Your task to perform on an android device: Search for Mexican restaurants on Maps Image 0: 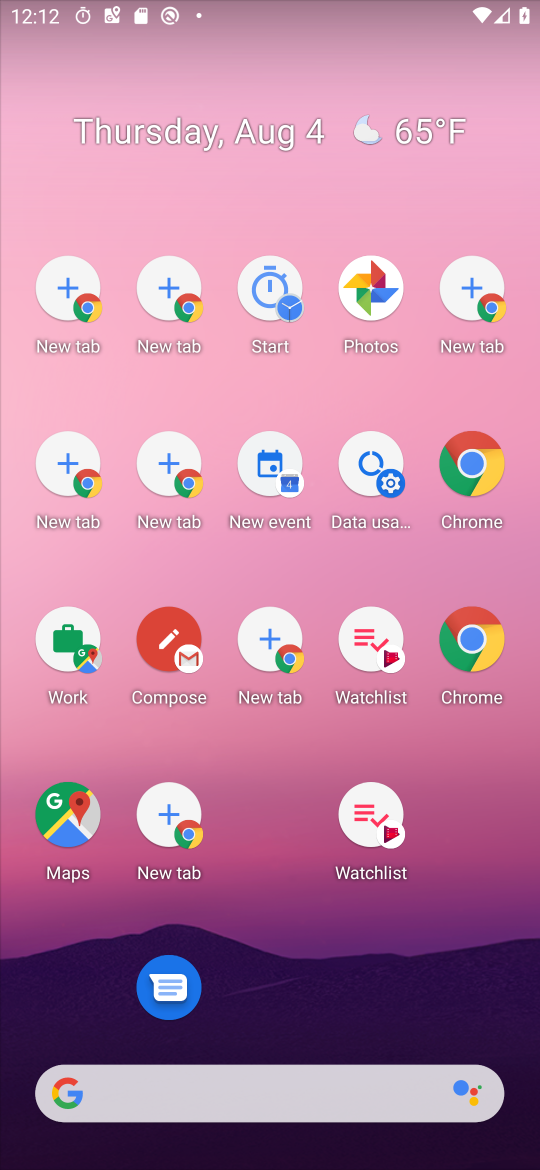
Step 0: drag from (193, 561) to (101, 55)
Your task to perform on an android device: Search for Mexican restaurants on Maps Image 1: 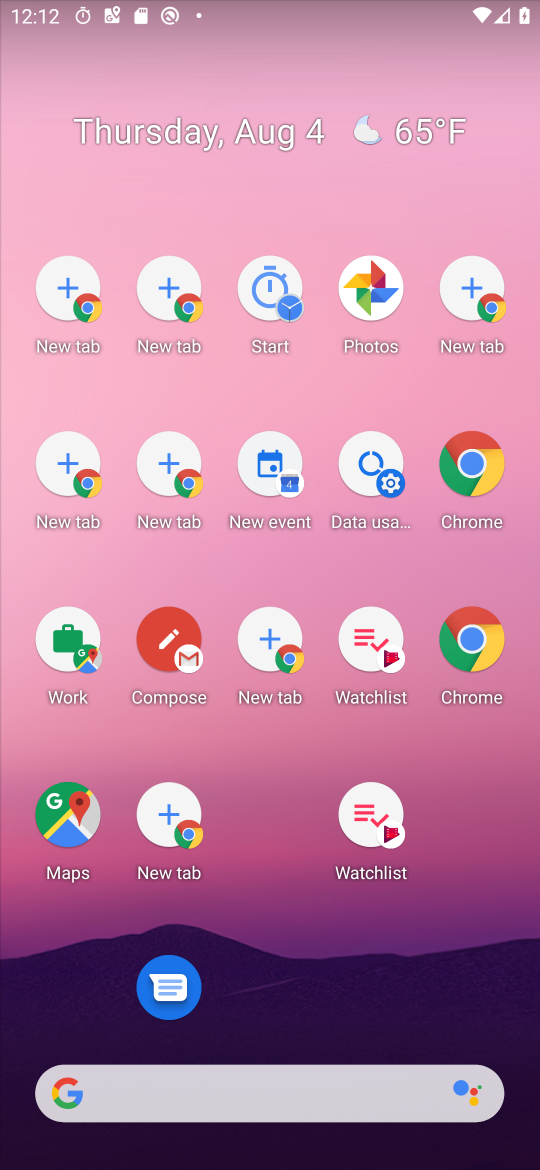
Step 1: click (58, 808)
Your task to perform on an android device: Search for Mexican restaurants on Maps Image 2: 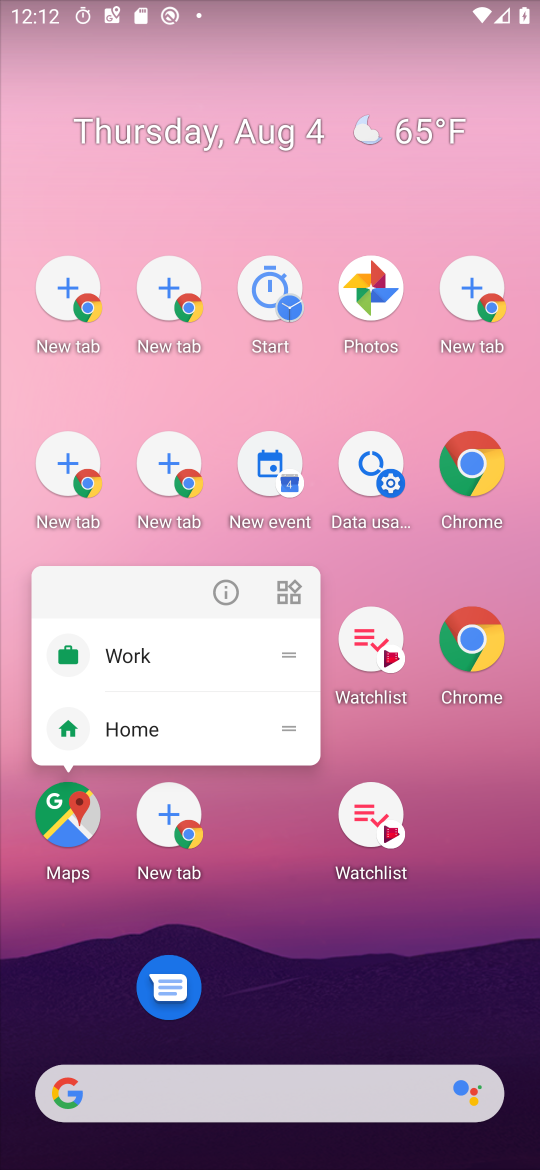
Step 2: click (58, 817)
Your task to perform on an android device: Search for Mexican restaurants on Maps Image 3: 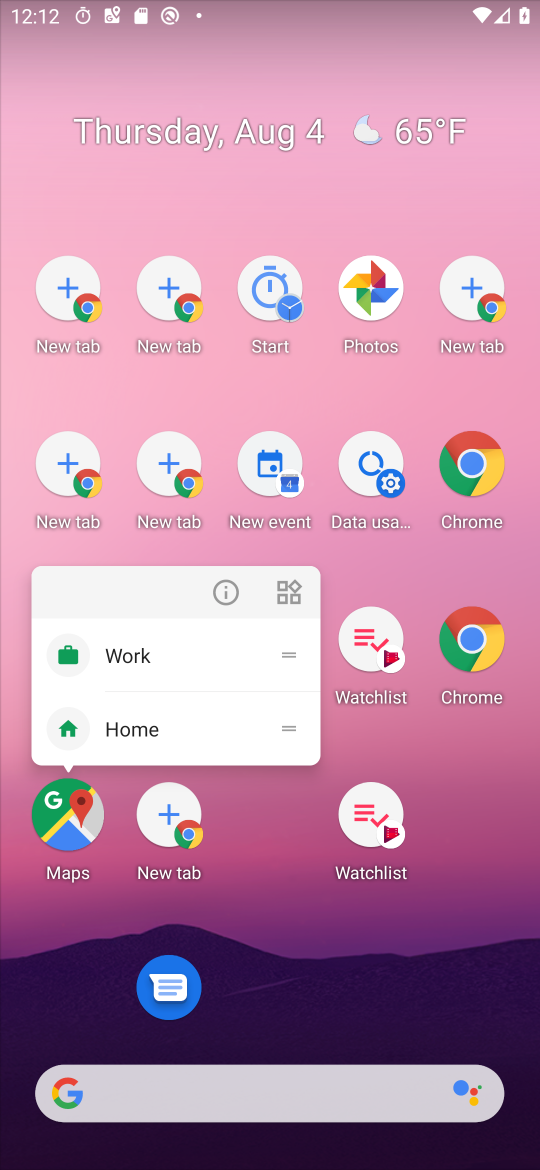
Step 3: click (68, 824)
Your task to perform on an android device: Search for Mexican restaurants on Maps Image 4: 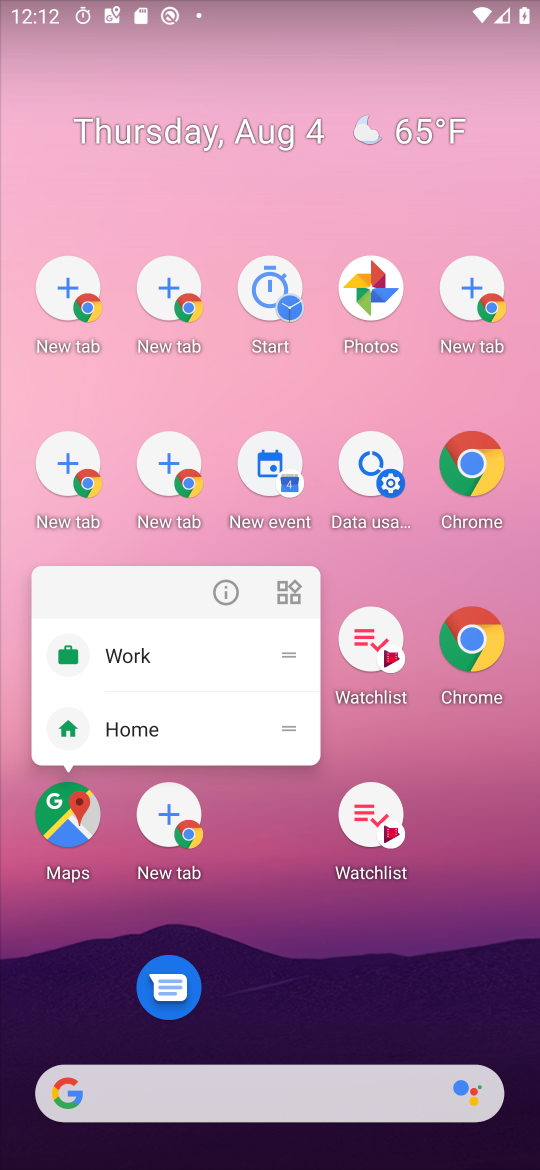
Step 4: click (111, 645)
Your task to perform on an android device: Search for Mexican restaurants on Maps Image 5: 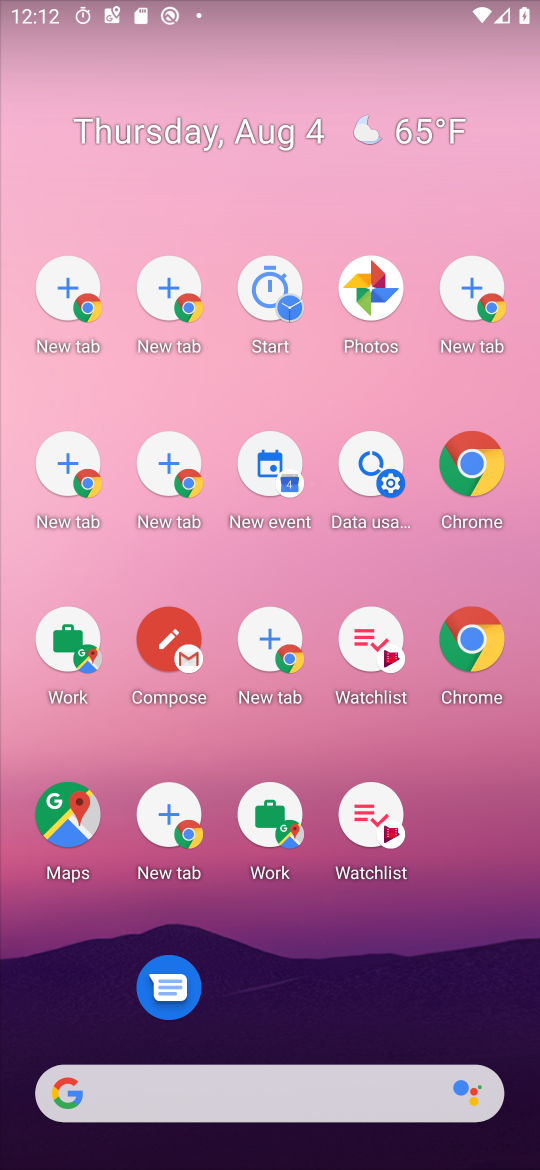
Step 5: click (38, 791)
Your task to perform on an android device: Search for Mexican restaurants on Maps Image 6: 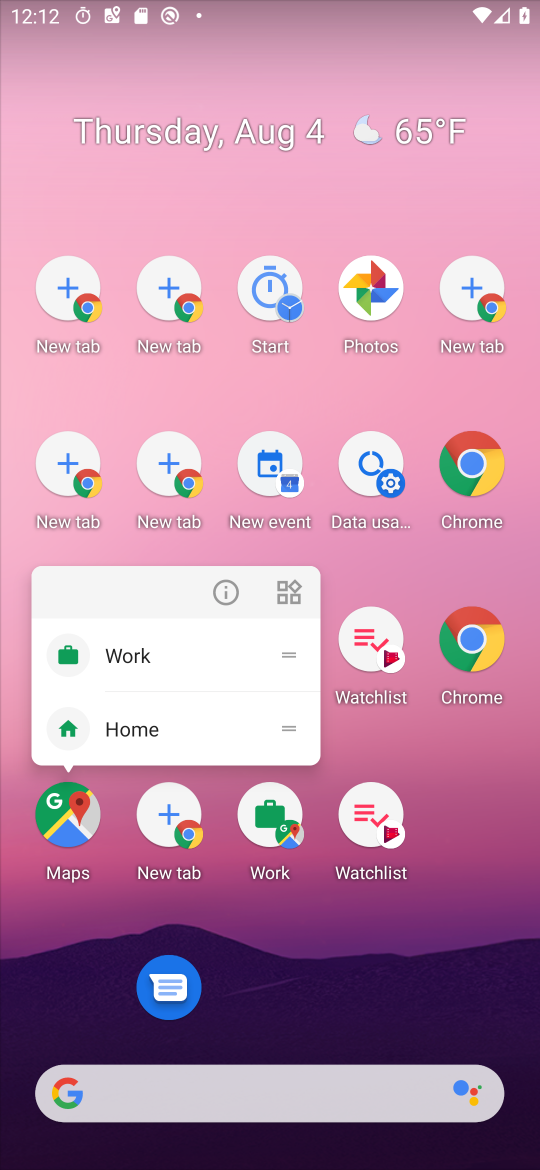
Step 6: click (82, 639)
Your task to perform on an android device: Search for Mexican restaurants on Maps Image 7: 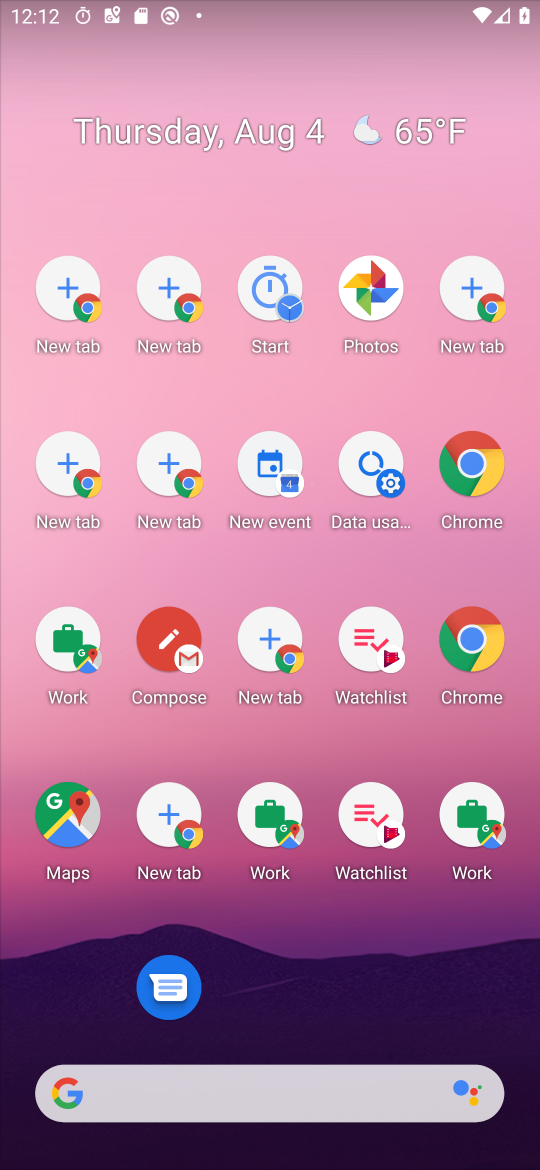
Step 7: drag from (454, 1087) to (317, 146)
Your task to perform on an android device: Search for Mexican restaurants on Maps Image 8: 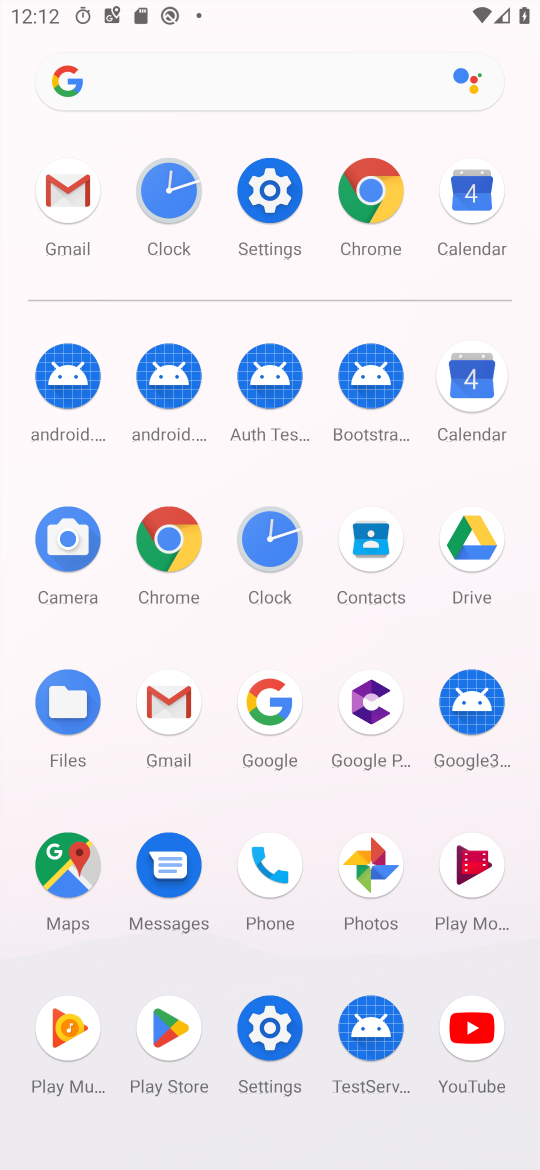
Step 8: click (64, 848)
Your task to perform on an android device: Search for Mexican restaurants on Maps Image 9: 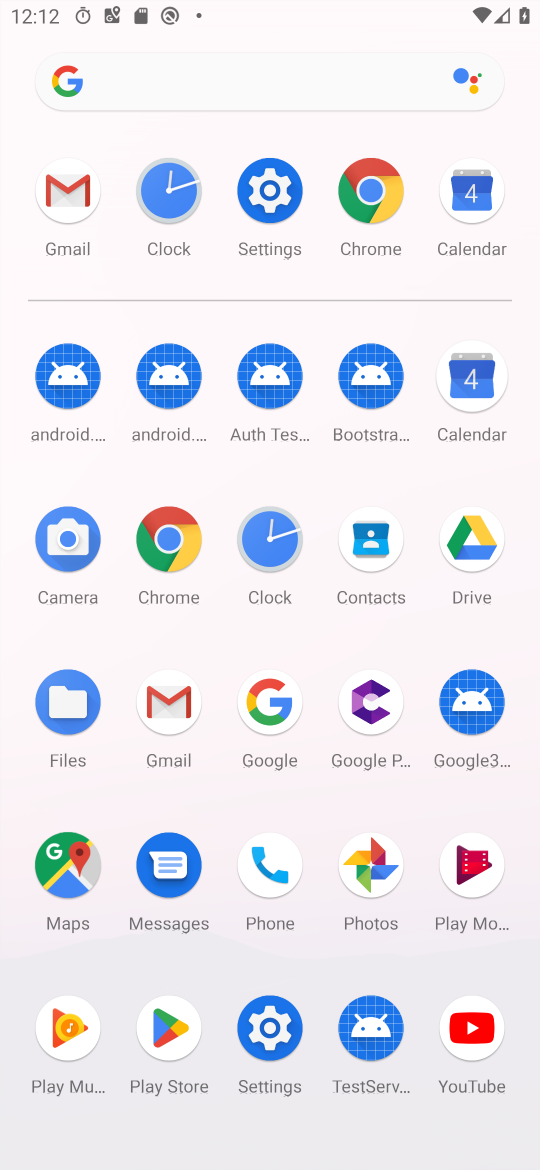
Step 9: click (66, 848)
Your task to perform on an android device: Search for Mexican restaurants on Maps Image 10: 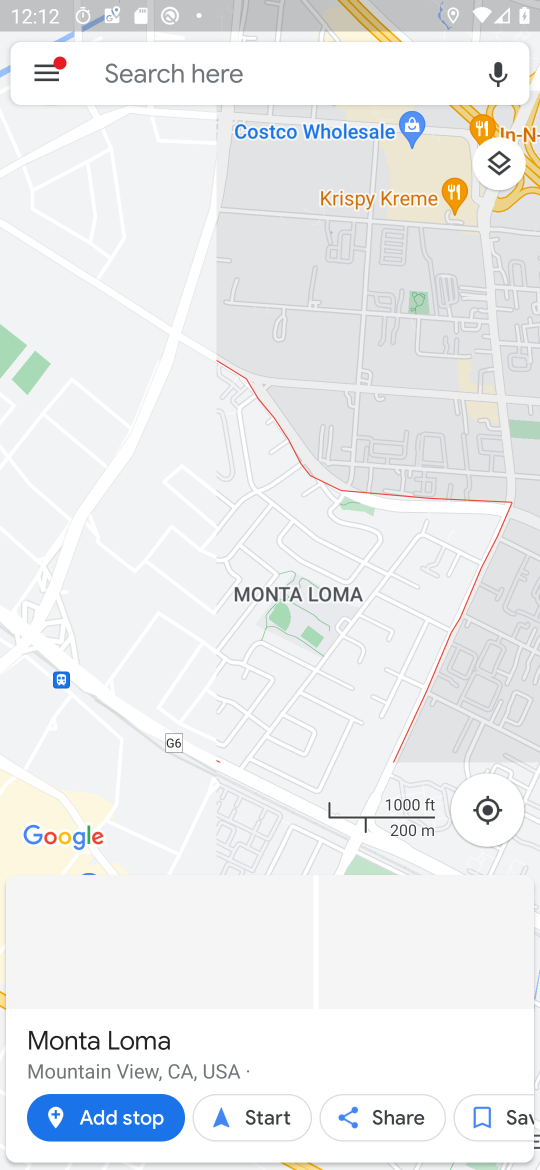
Step 10: click (41, 65)
Your task to perform on an android device: Search for Mexican restaurants on Maps Image 11: 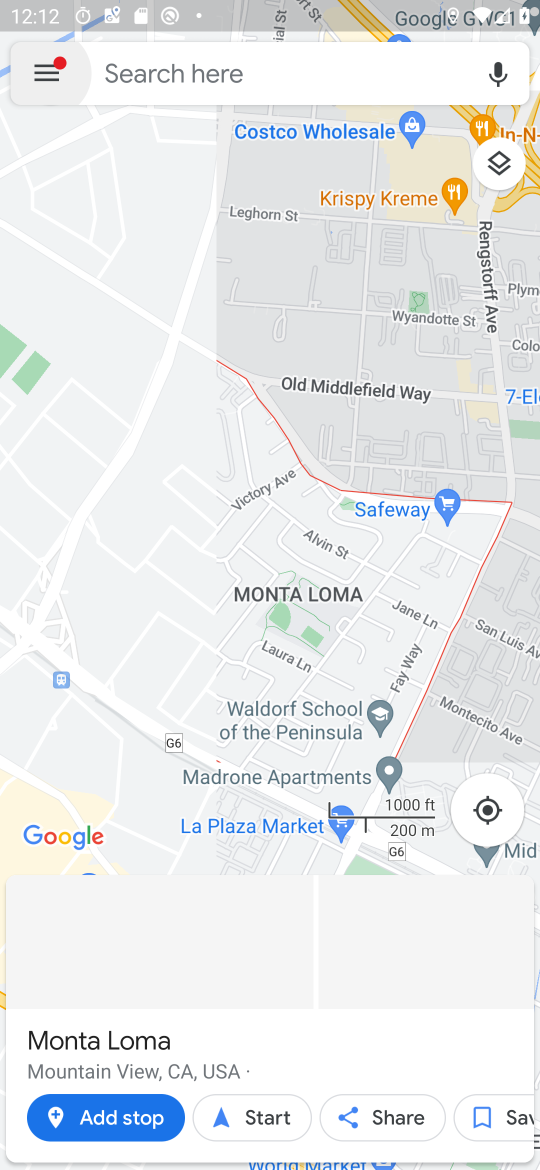
Step 11: click (193, 76)
Your task to perform on an android device: Search for Mexican restaurants on Maps Image 12: 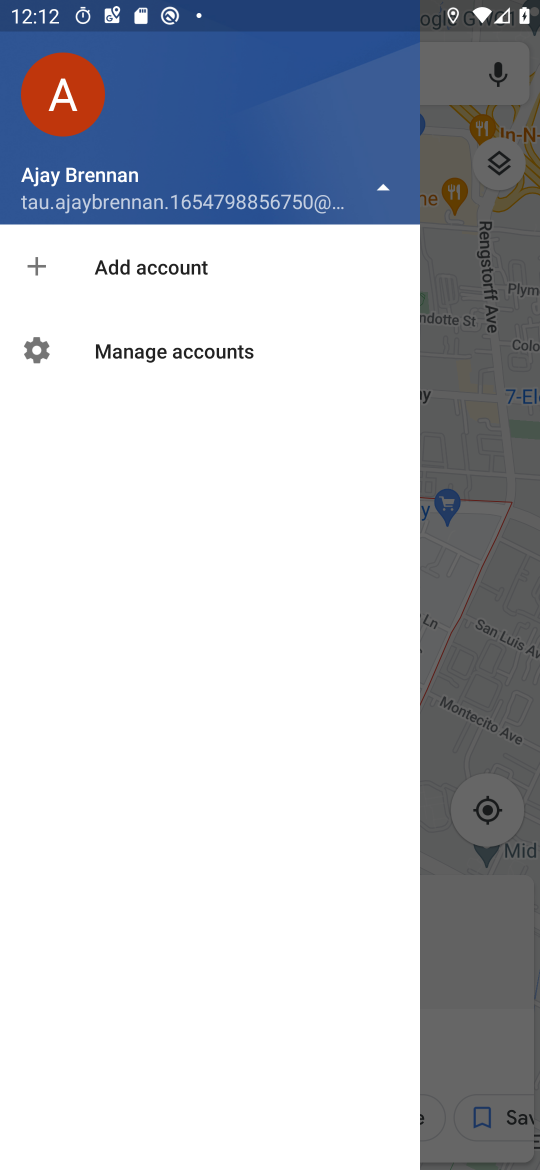
Step 12: click (475, 571)
Your task to perform on an android device: Search for Mexican restaurants on Maps Image 13: 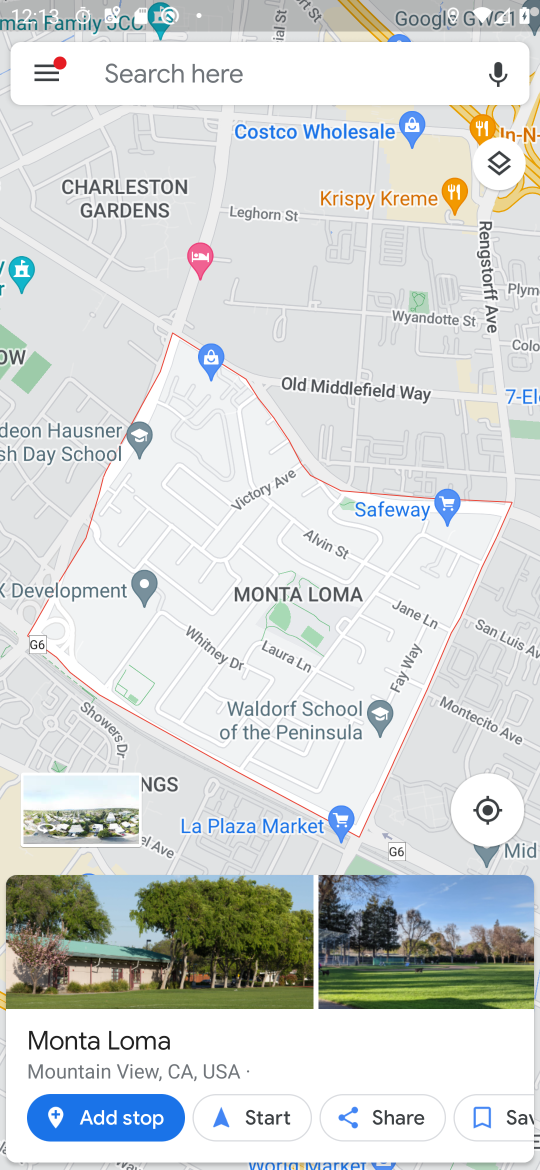
Step 13: click (141, 65)
Your task to perform on an android device: Search for Mexican restaurants on Maps Image 14: 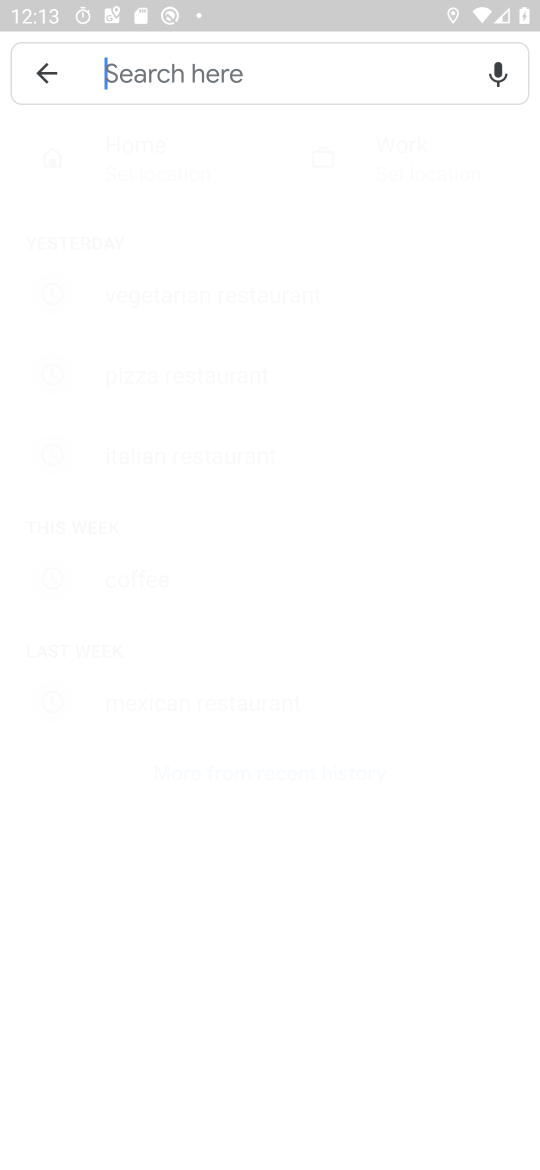
Step 14: click (105, 69)
Your task to perform on an android device: Search for Mexican restaurants on Maps Image 15: 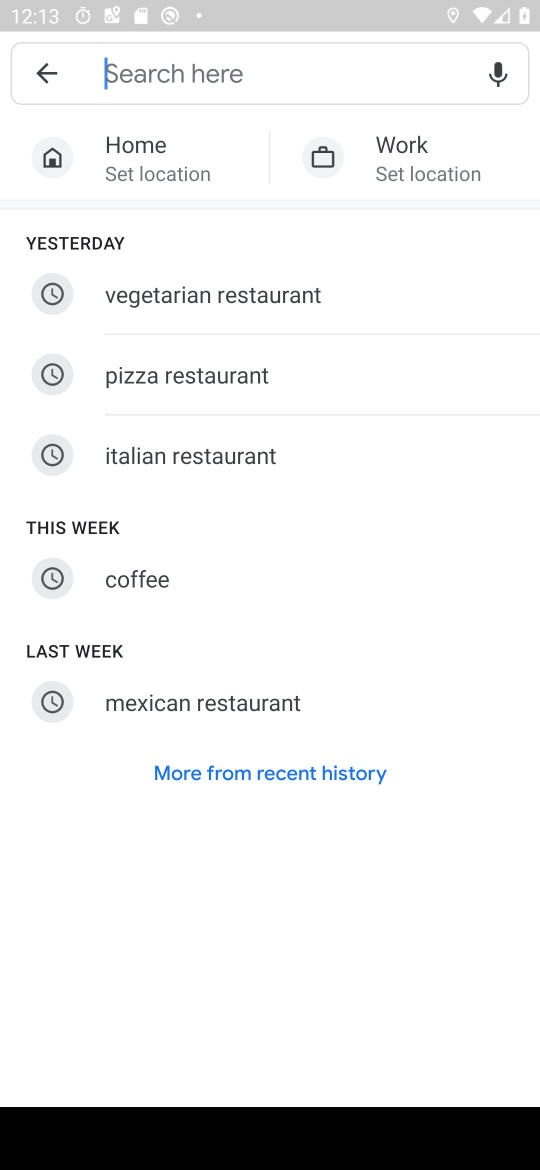
Step 15: click (234, 715)
Your task to perform on an android device: Search for Mexican restaurants on Maps Image 16: 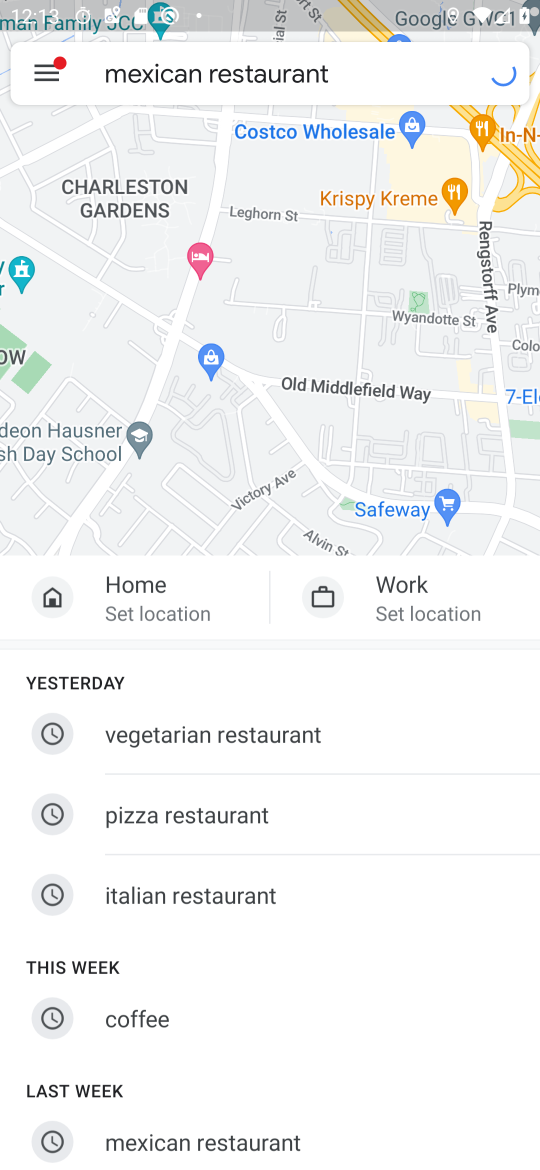
Step 16: click (208, 710)
Your task to perform on an android device: Search for Mexican restaurants on Maps Image 17: 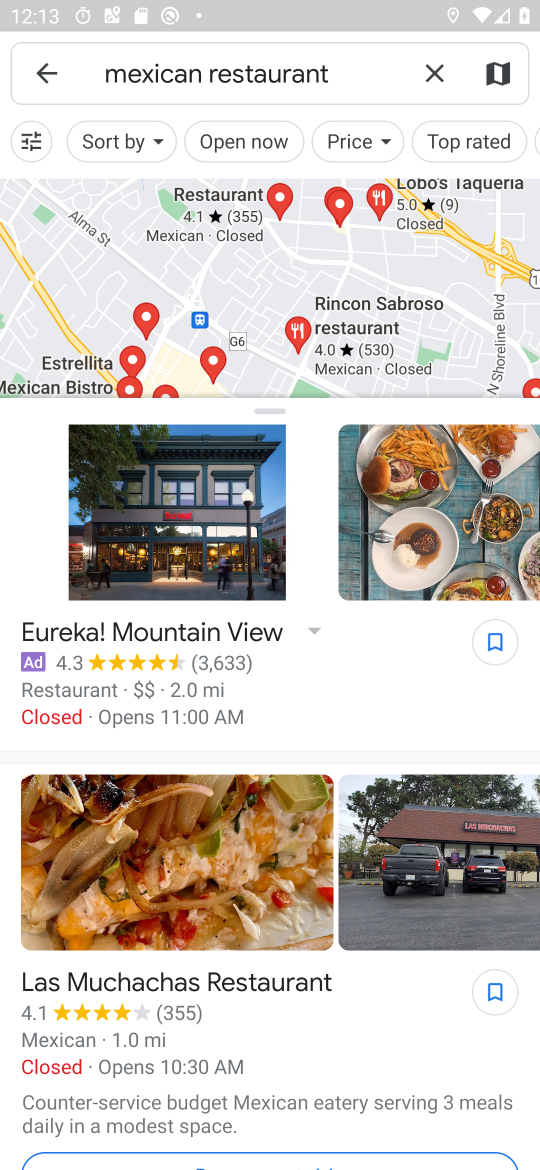
Step 17: task complete